Your task to perform on an android device: Go to internet settings Image 0: 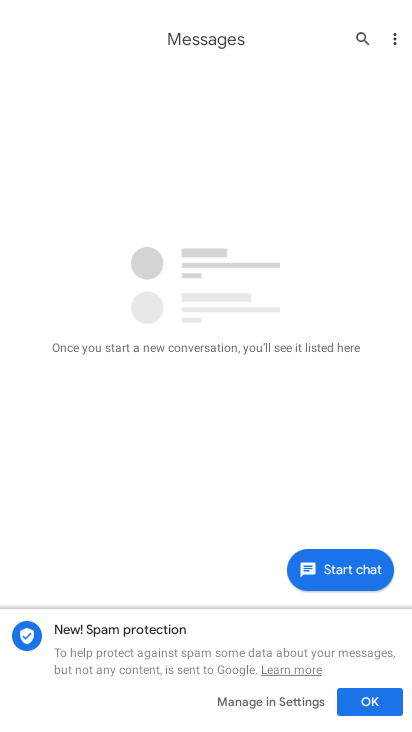
Step 0: press home button
Your task to perform on an android device: Go to internet settings Image 1: 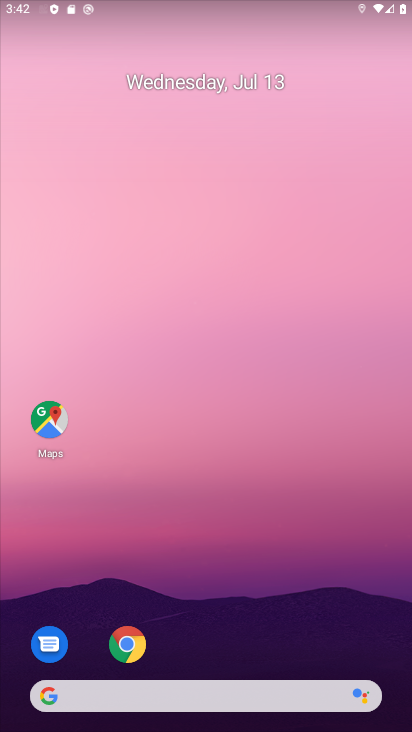
Step 1: drag from (207, 651) to (186, 64)
Your task to perform on an android device: Go to internet settings Image 2: 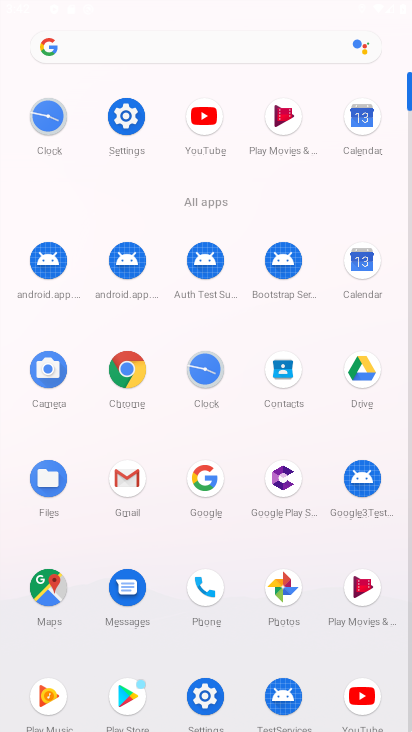
Step 2: click (118, 112)
Your task to perform on an android device: Go to internet settings Image 3: 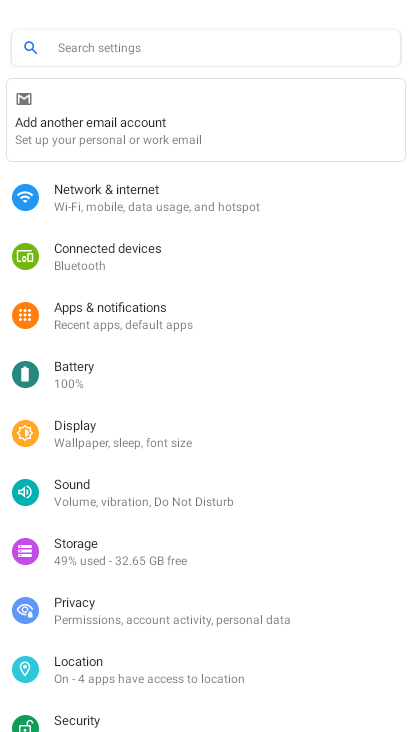
Step 3: click (163, 184)
Your task to perform on an android device: Go to internet settings Image 4: 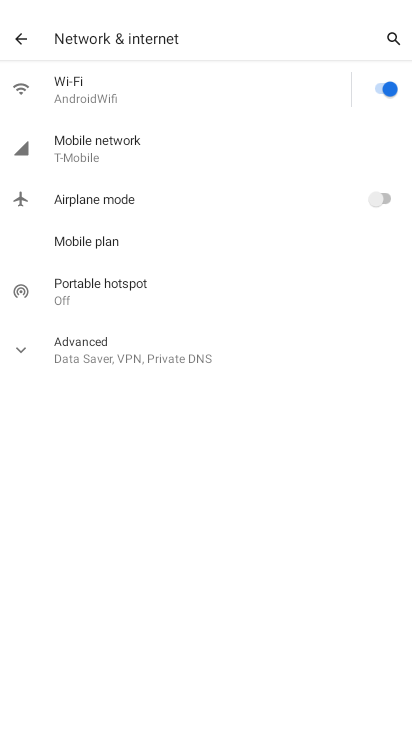
Step 4: task complete